Your task to perform on an android device: move an email to a new category in the gmail app Image 0: 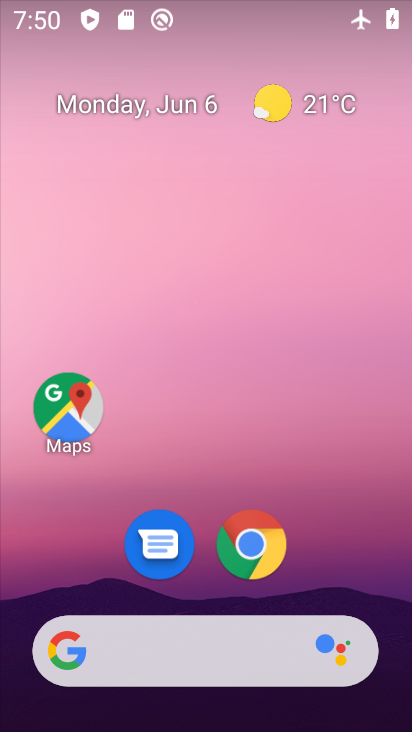
Step 0: drag from (333, 583) to (307, 293)
Your task to perform on an android device: move an email to a new category in the gmail app Image 1: 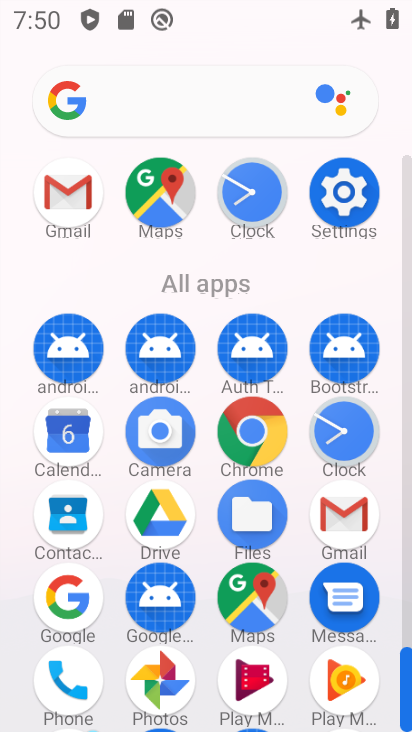
Step 1: click (339, 521)
Your task to perform on an android device: move an email to a new category in the gmail app Image 2: 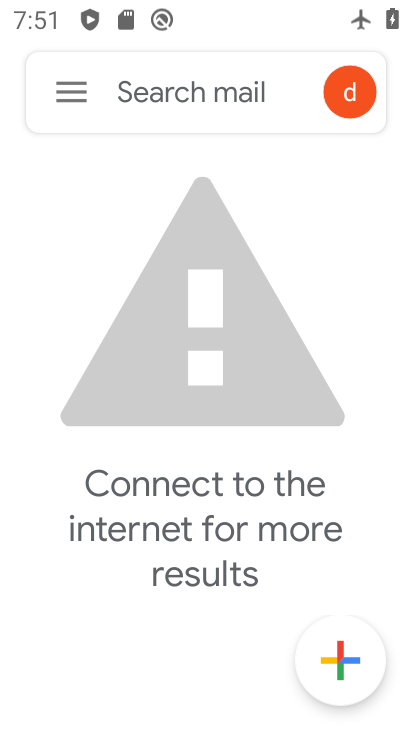
Step 2: click (63, 80)
Your task to perform on an android device: move an email to a new category in the gmail app Image 3: 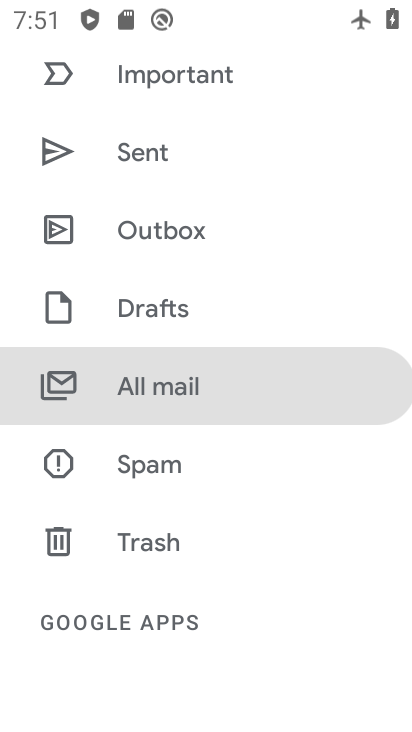
Step 3: click (182, 385)
Your task to perform on an android device: move an email to a new category in the gmail app Image 4: 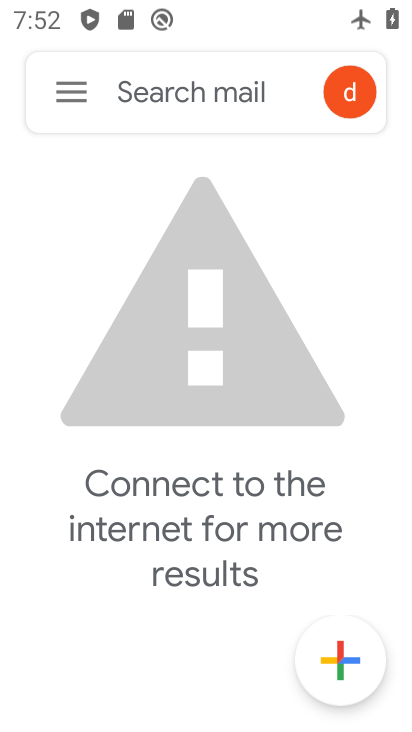
Step 4: task complete